Your task to perform on an android device: Open my contact list Image 0: 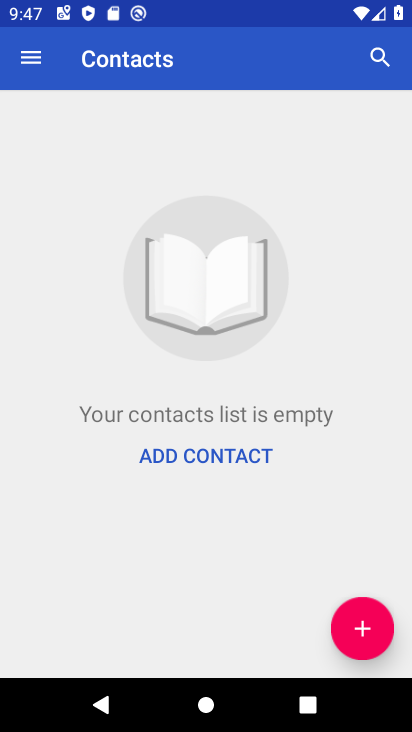
Step 0: press home button
Your task to perform on an android device: Open my contact list Image 1: 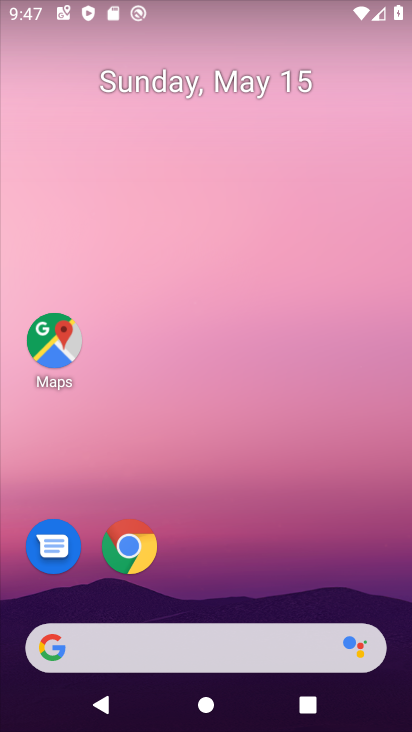
Step 1: drag from (326, 567) to (390, 130)
Your task to perform on an android device: Open my contact list Image 2: 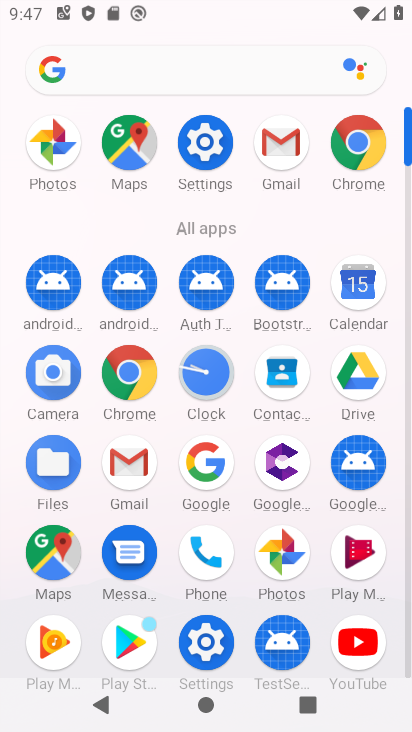
Step 2: click (294, 383)
Your task to perform on an android device: Open my contact list Image 3: 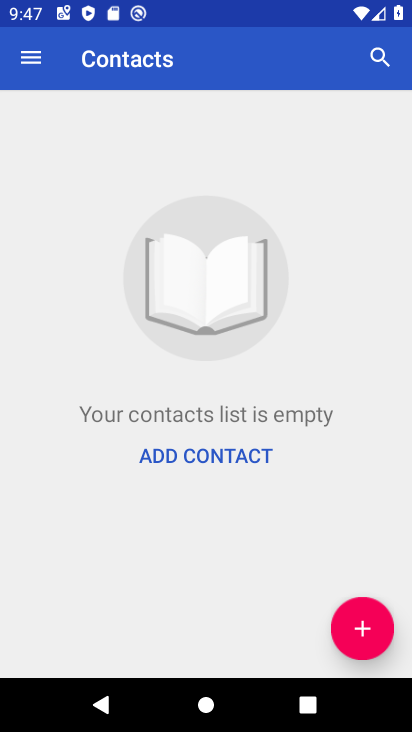
Step 3: task complete